Your task to perform on an android device: Open settings on Google Maps Image 0: 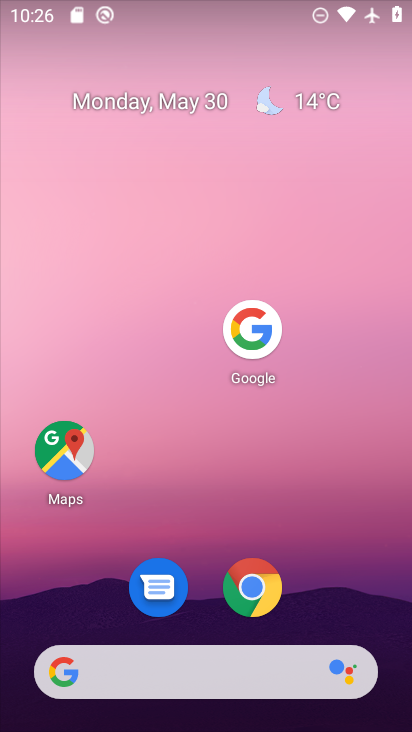
Step 0: click (74, 454)
Your task to perform on an android device: Open settings on Google Maps Image 1: 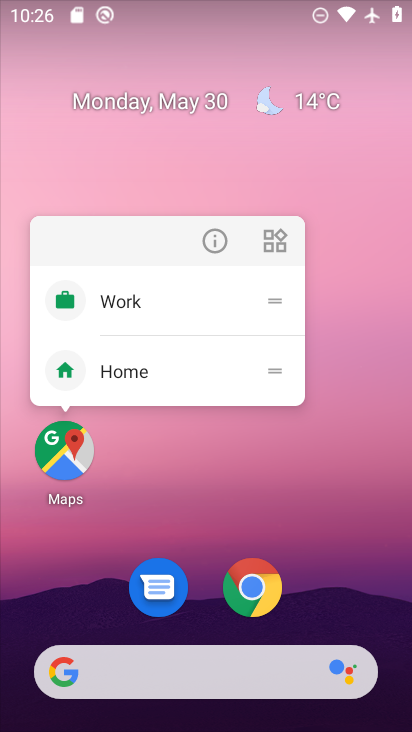
Step 1: click (74, 459)
Your task to perform on an android device: Open settings on Google Maps Image 2: 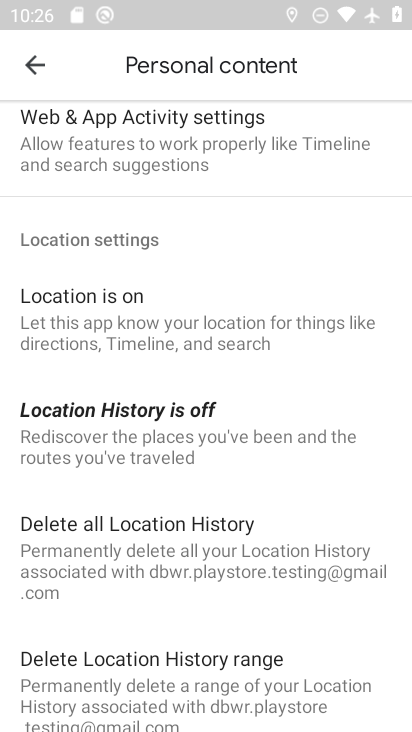
Step 2: click (50, 52)
Your task to perform on an android device: Open settings on Google Maps Image 3: 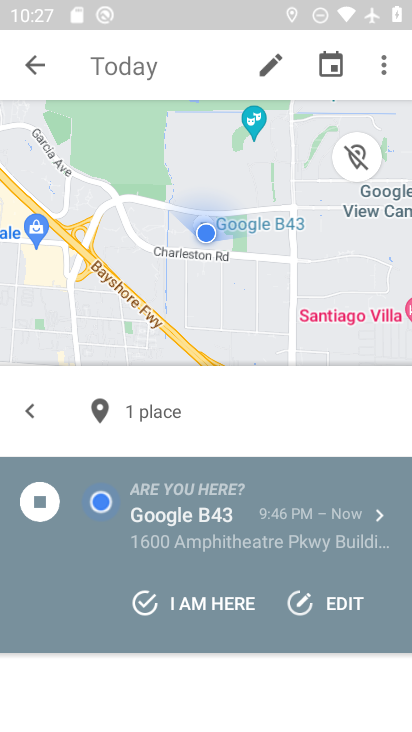
Step 3: click (40, 70)
Your task to perform on an android device: Open settings on Google Maps Image 4: 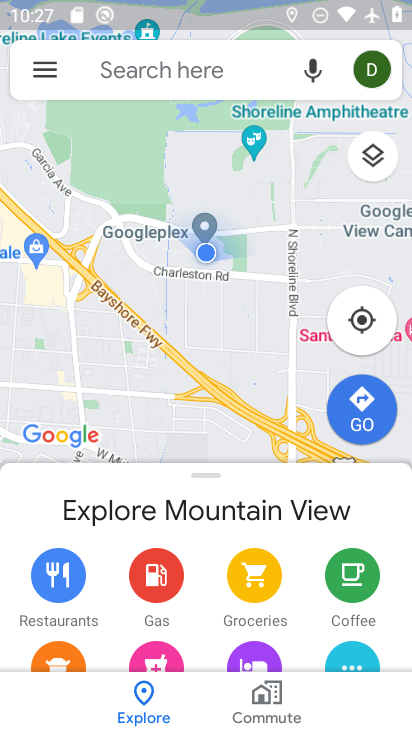
Step 4: click (38, 61)
Your task to perform on an android device: Open settings on Google Maps Image 5: 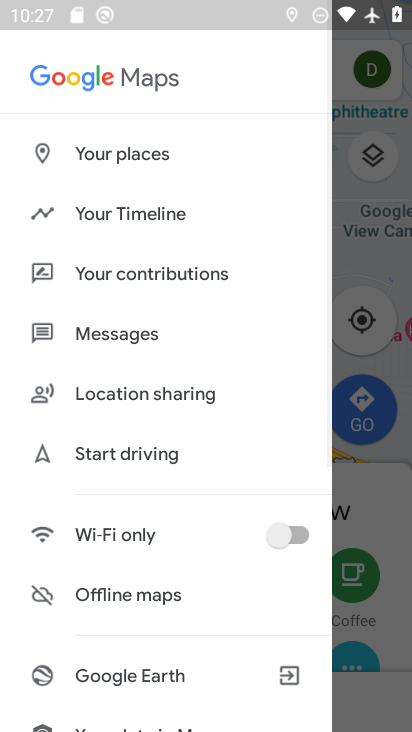
Step 5: task complete